Your task to perform on an android device: What's on my calendar today? Image 0: 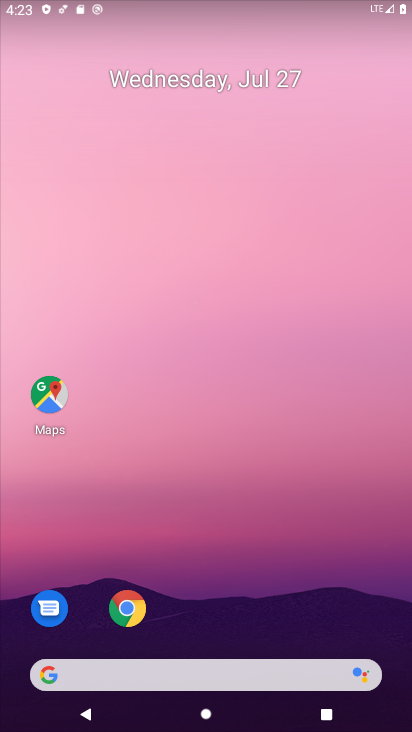
Step 0: drag from (279, 540) to (174, 152)
Your task to perform on an android device: What's on my calendar today? Image 1: 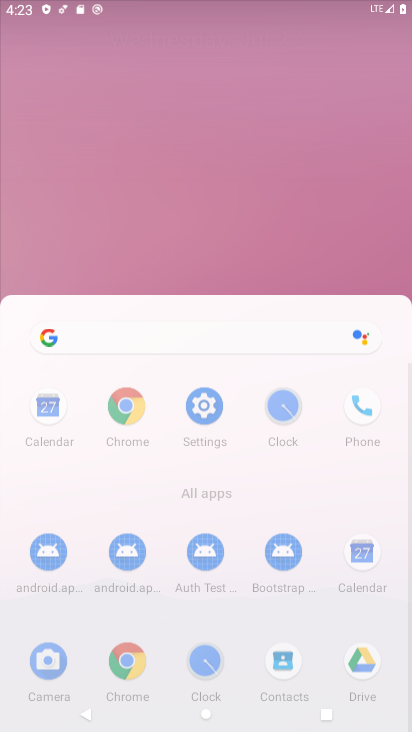
Step 1: drag from (143, 480) to (84, 206)
Your task to perform on an android device: What's on my calendar today? Image 2: 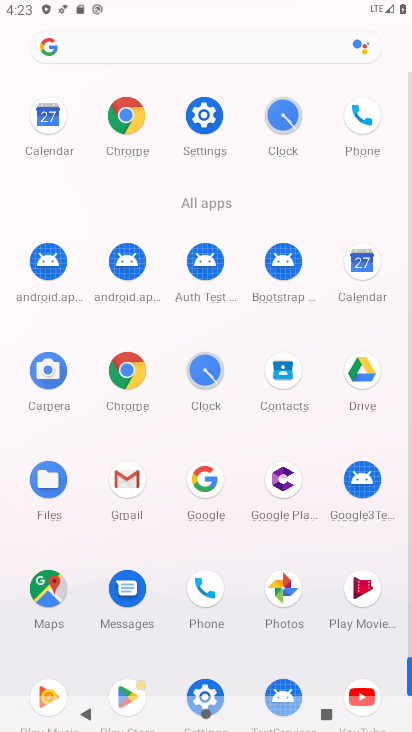
Step 2: drag from (129, 474) to (102, 230)
Your task to perform on an android device: What's on my calendar today? Image 3: 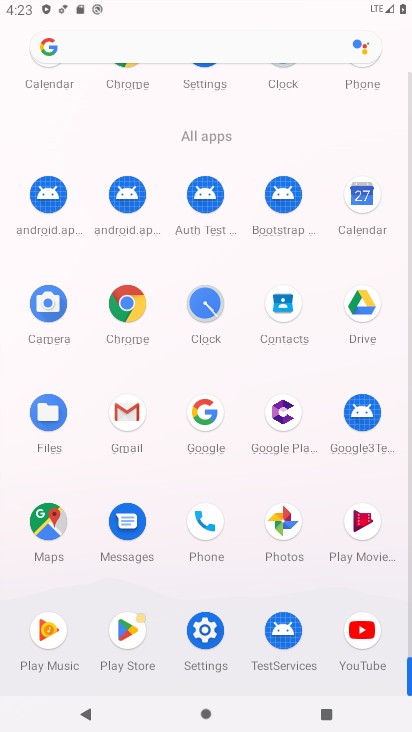
Step 3: drag from (366, 179) to (373, 223)
Your task to perform on an android device: What's on my calendar today? Image 4: 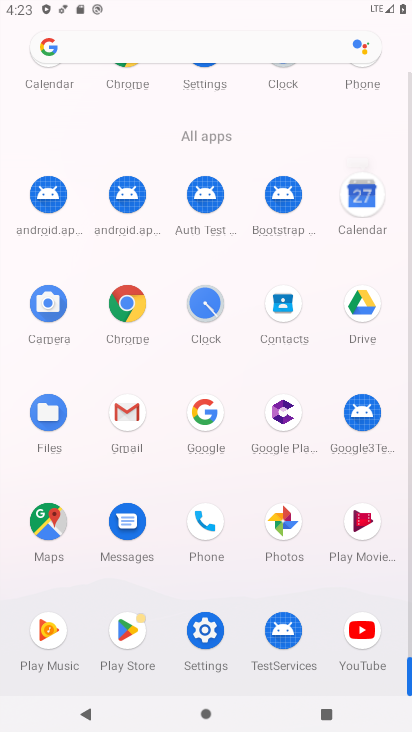
Step 4: click (373, 223)
Your task to perform on an android device: What's on my calendar today? Image 5: 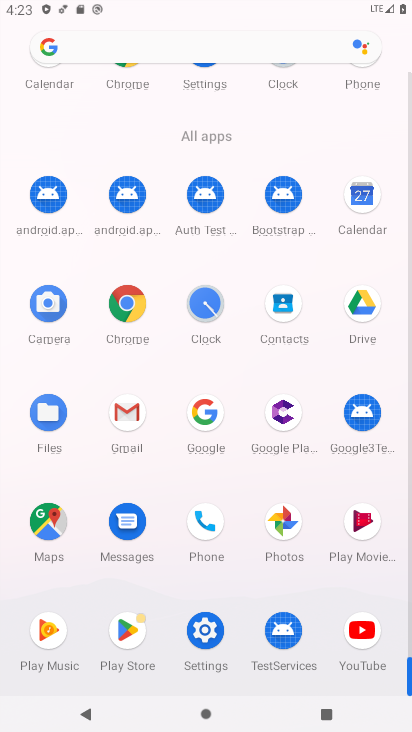
Step 5: click (375, 224)
Your task to perform on an android device: What's on my calendar today? Image 6: 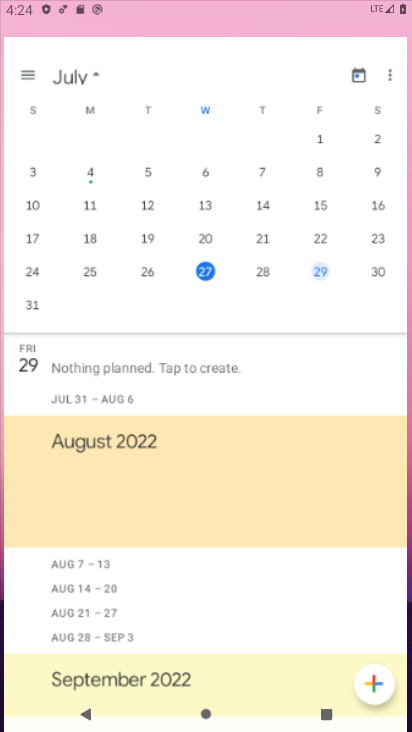
Step 6: click (359, 200)
Your task to perform on an android device: What's on my calendar today? Image 7: 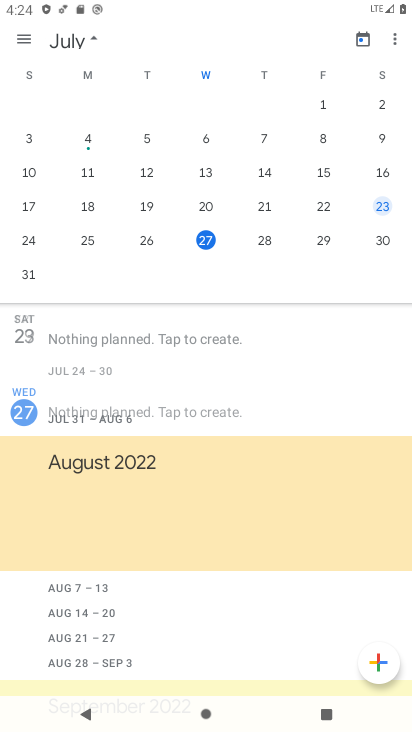
Step 7: click (360, 192)
Your task to perform on an android device: What's on my calendar today? Image 8: 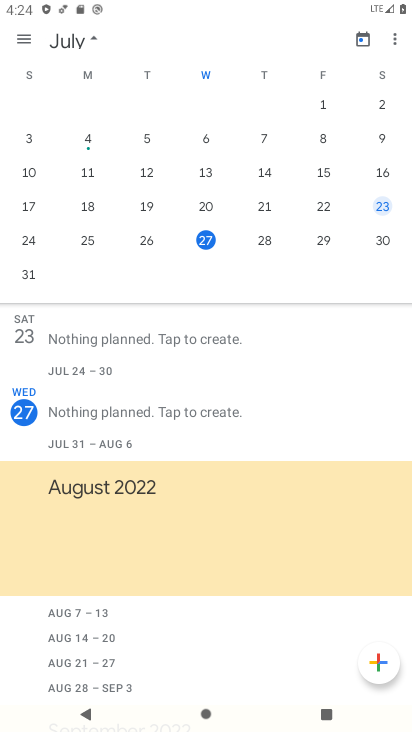
Step 8: click (200, 232)
Your task to perform on an android device: What's on my calendar today? Image 9: 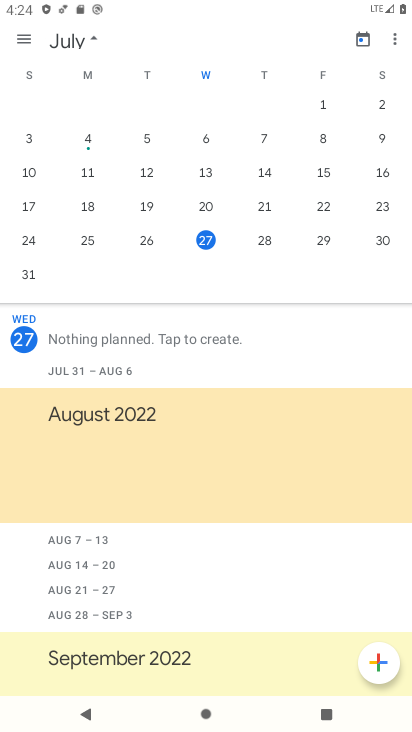
Step 9: task complete